Your task to perform on an android device: Go to display settings Image 0: 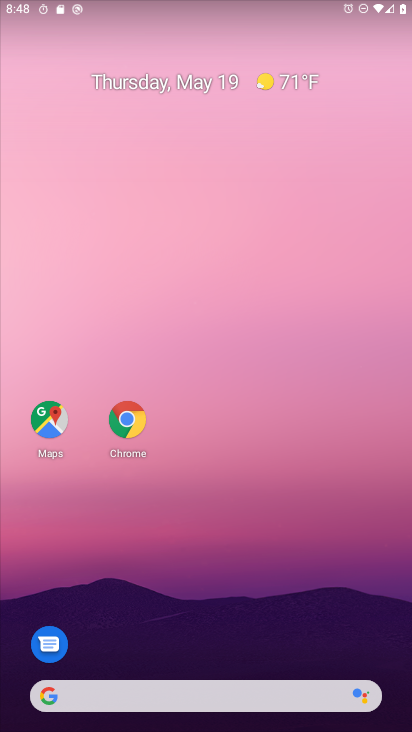
Step 0: press home button
Your task to perform on an android device: Go to display settings Image 1: 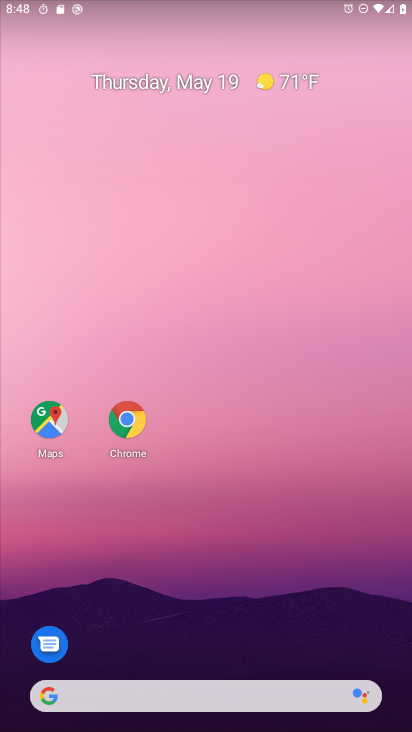
Step 1: drag from (205, 675) to (205, 345)
Your task to perform on an android device: Go to display settings Image 2: 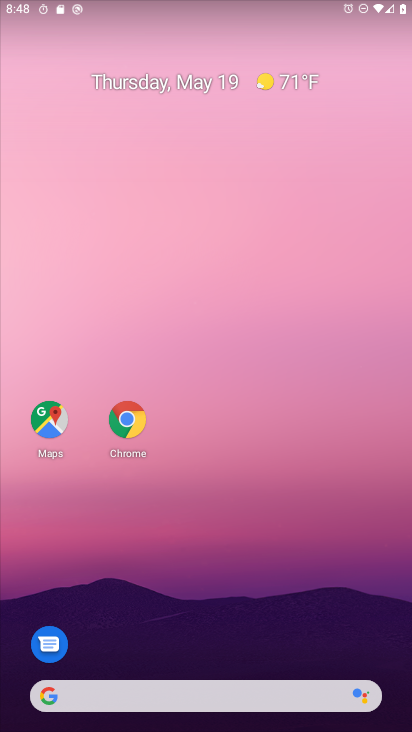
Step 2: drag from (176, 678) to (236, 251)
Your task to perform on an android device: Go to display settings Image 3: 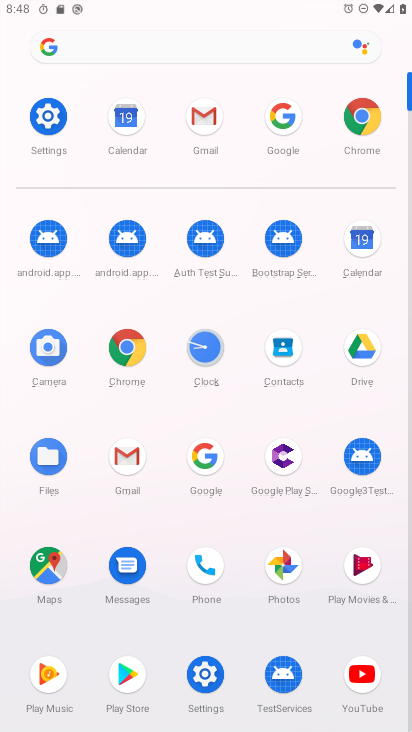
Step 3: click (48, 116)
Your task to perform on an android device: Go to display settings Image 4: 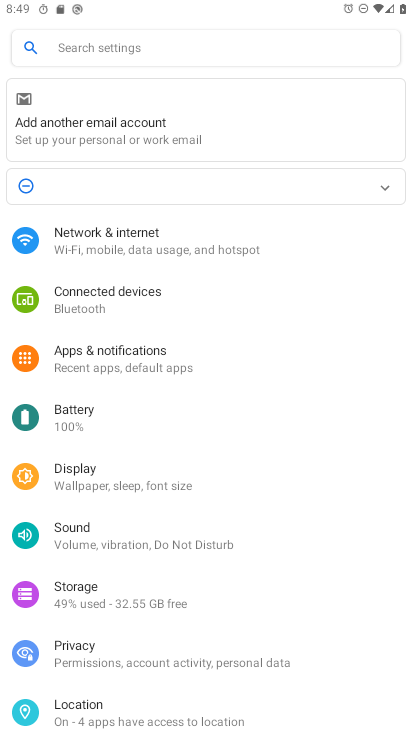
Step 4: click (92, 478)
Your task to perform on an android device: Go to display settings Image 5: 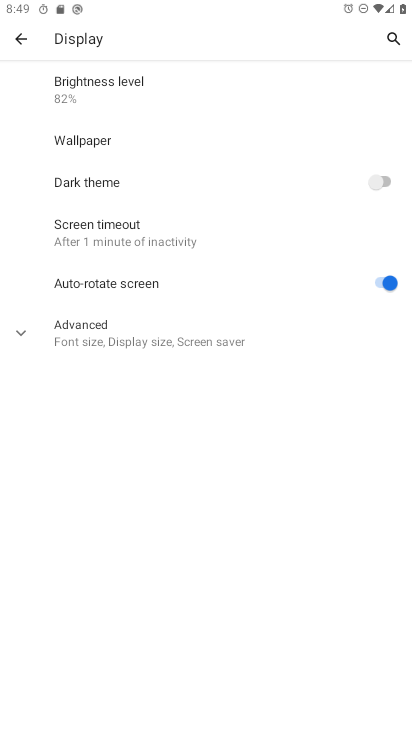
Step 5: click (105, 319)
Your task to perform on an android device: Go to display settings Image 6: 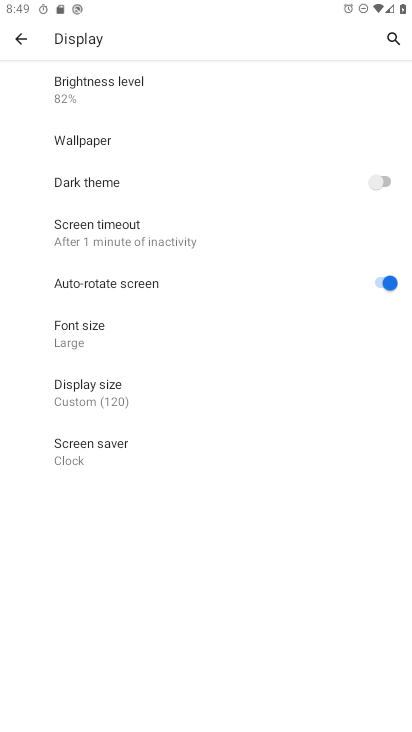
Step 6: task complete